Your task to perform on an android device: delete location history Image 0: 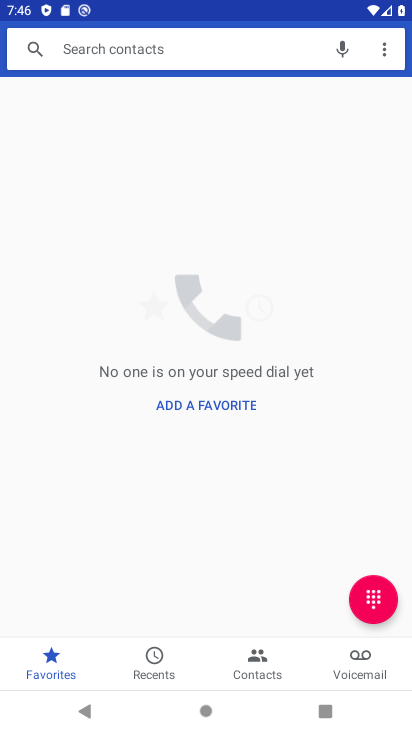
Step 0: press home button
Your task to perform on an android device: delete location history Image 1: 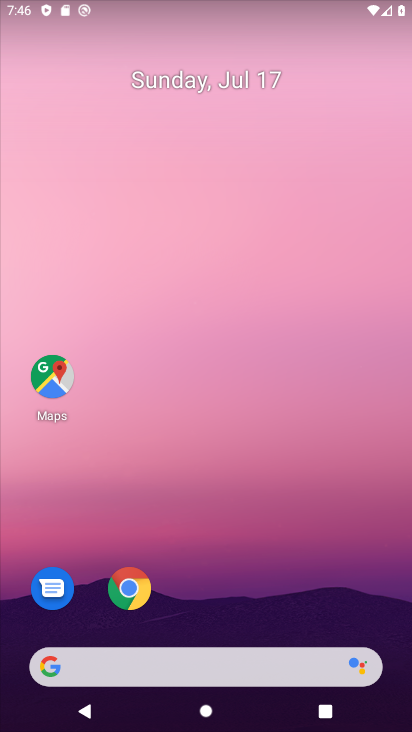
Step 1: drag from (259, 665) to (251, 140)
Your task to perform on an android device: delete location history Image 2: 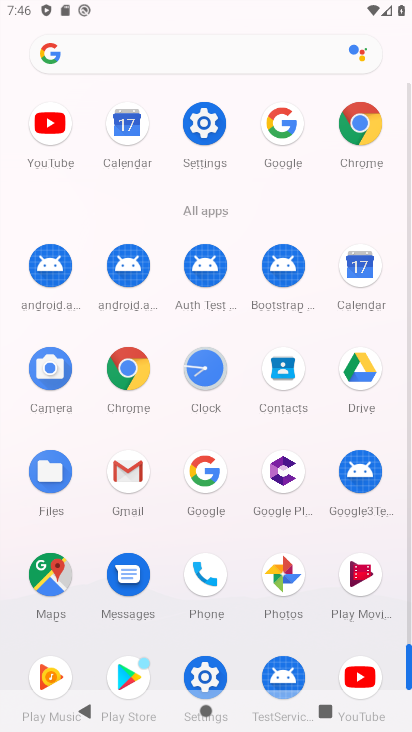
Step 2: click (213, 156)
Your task to perform on an android device: delete location history Image 3: 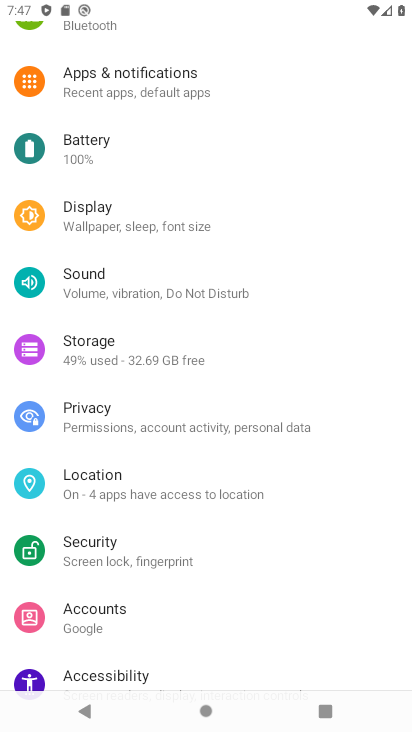
Step 3: click (155, 490)
Your task to perform on an android device: delete location history Image 4: 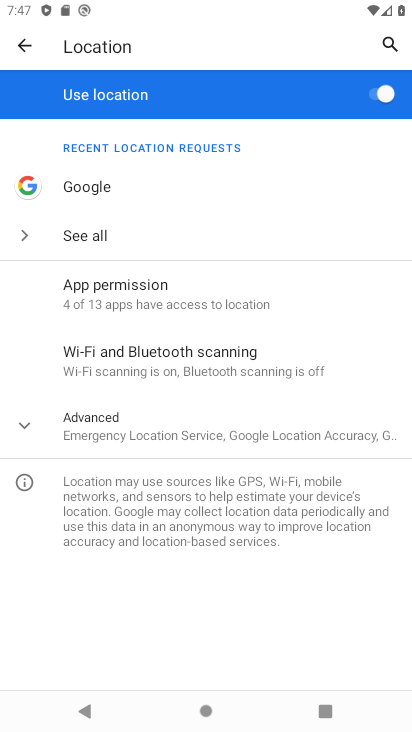
Step 4: click (161, 423)
Your task to perform on an android device: delete location history Image 5: 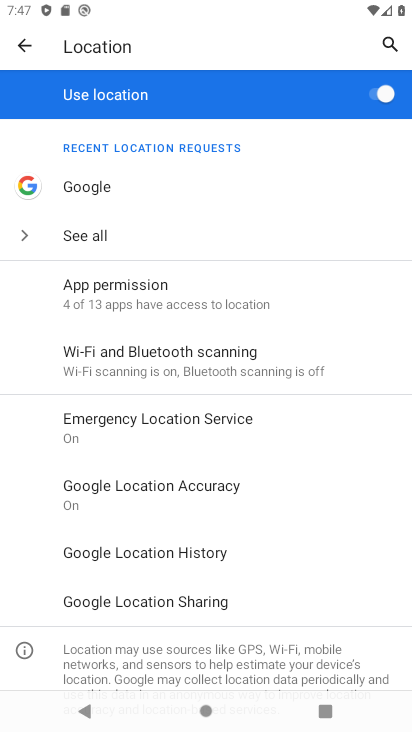
Step 5: click (184, 558)
Your task to perform on an android device: delete location history Image 6: 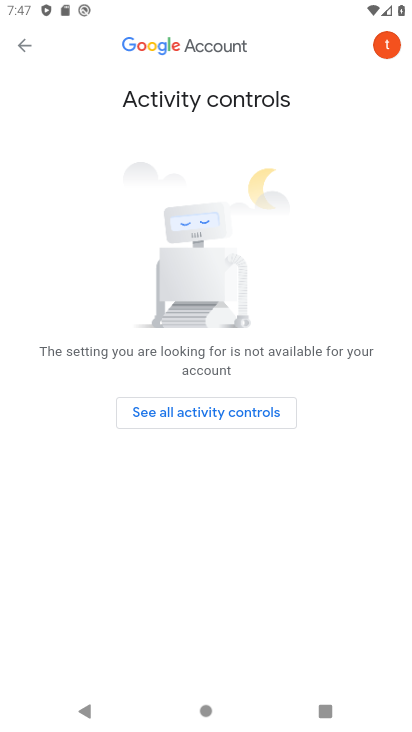
Step 6: task complete